Your task to perform on an android device: toggle location history Image 0: 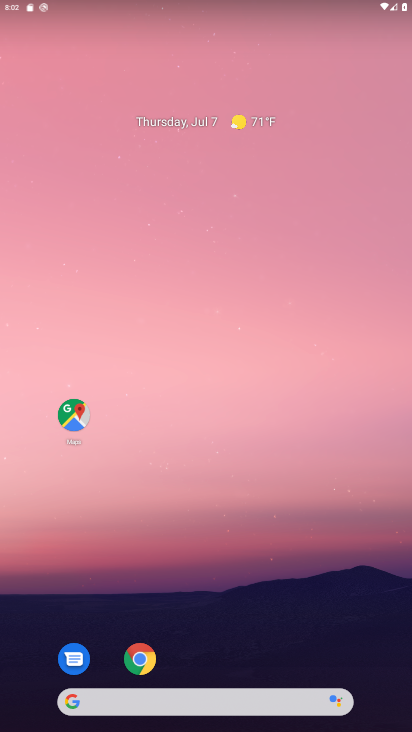
Step 0: drag from (217, 697) to (313, 181)
Your task to perform on an android device: toggle location history Image 1: 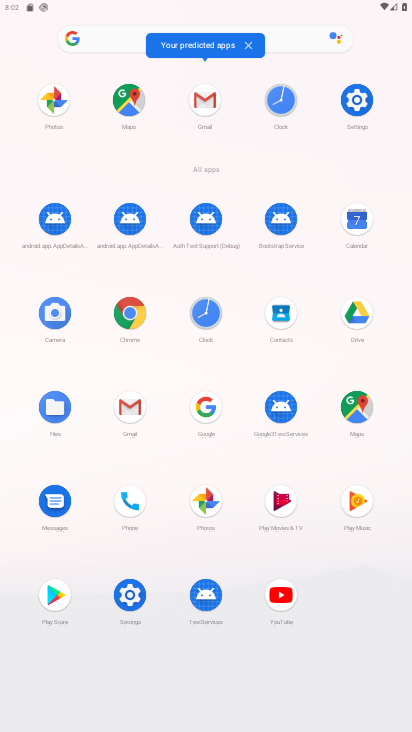
Step 1: click (118, 588)
Your task to perform on an android device: toggle location history Image 2: 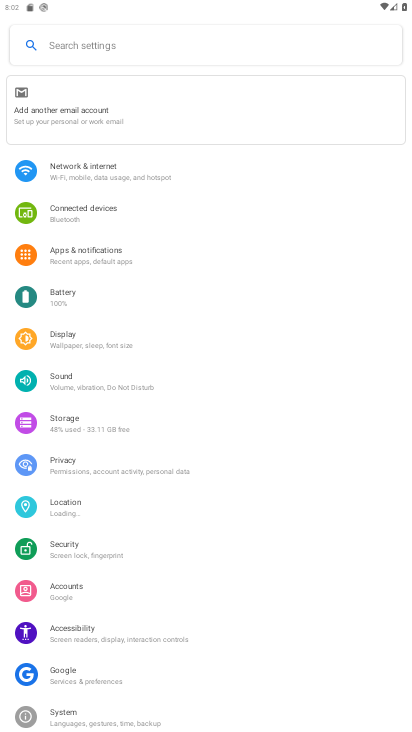
Step 2: click (106, 498)
Your task to perform on an android device: toggle location history Image 3: 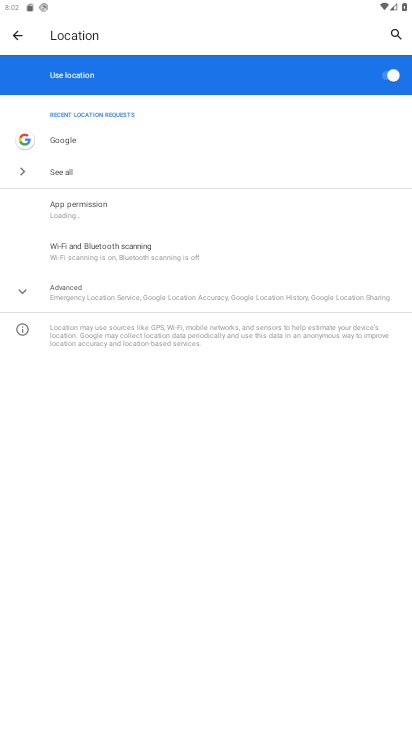
Step 3: click (128, 290)
Your task to perform on an android device: toggle location history Image 4: 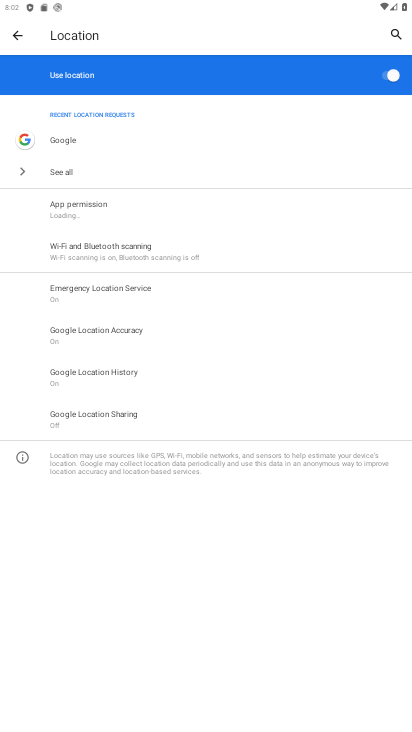
Step 4: click (174, 376)
Your task to perform on an android device: toggle location history Image 5: 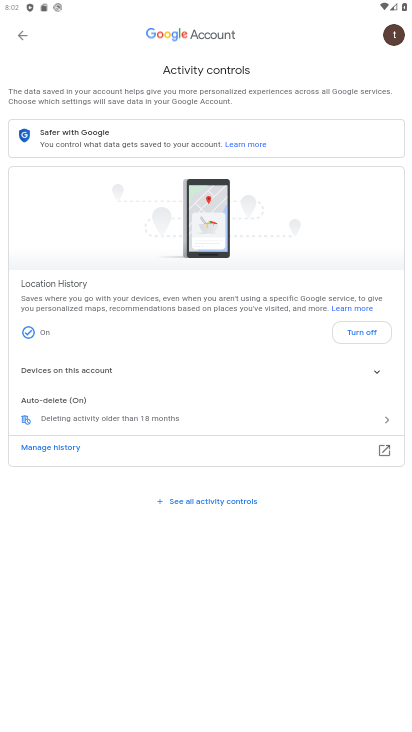
Step 5: click (344, 335)
Your task to perform on an android device: toggle location history Image 6: 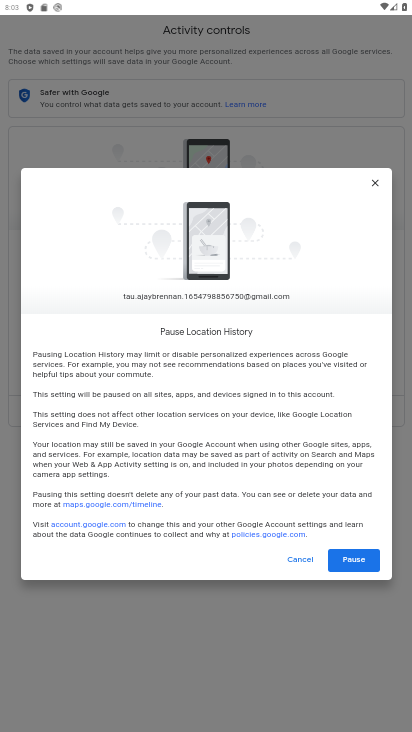
Step 6: click (349, 557)
Your task to perform on an android device: toggle location history Image 7: 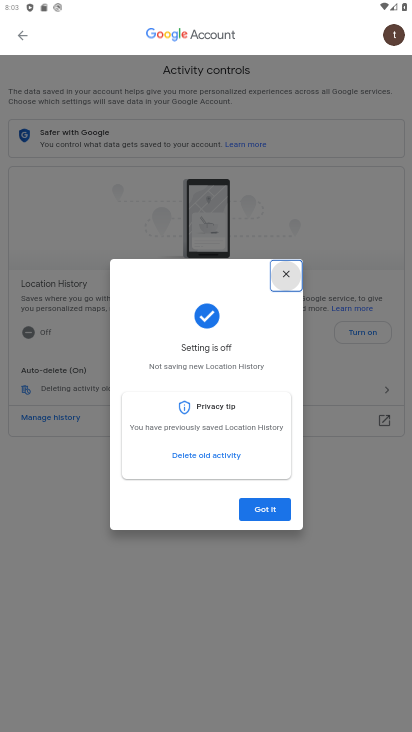
Step 7: click (271, 498)
Your task to perform on an android device: toggle location history Image 8: 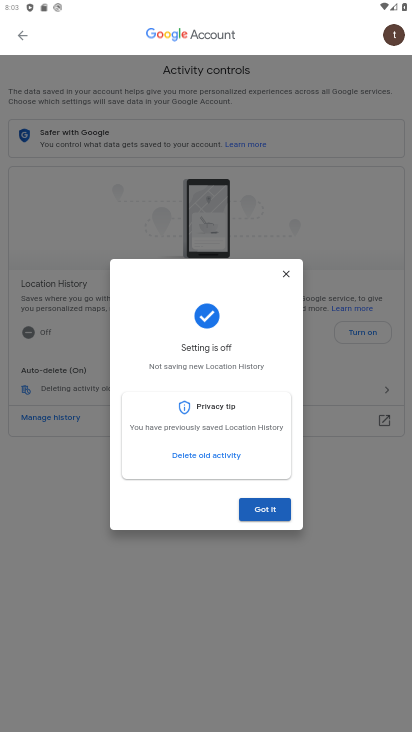
Step 8: click (283, 511)
Your task to perform on an android device: toggle location history Image 9: 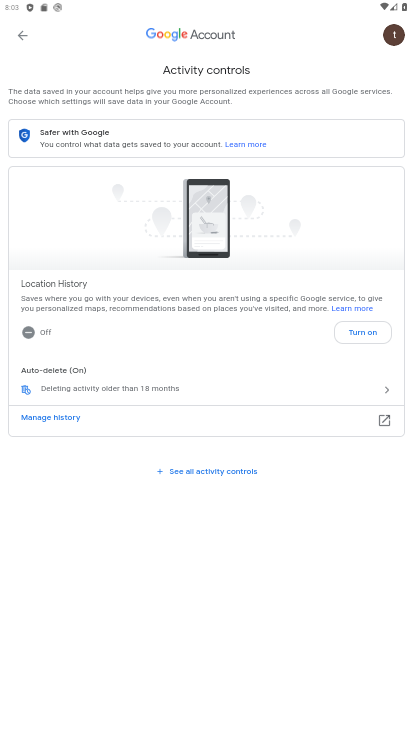
Step 9: task complete